Your task to perform on an android device: turn on javascript in the chrome app Image 0: 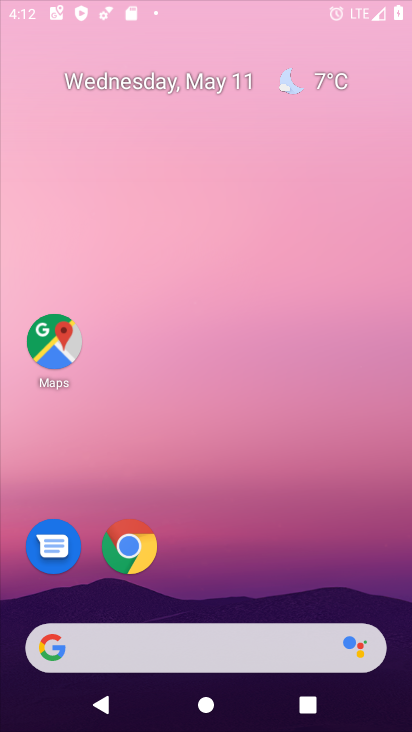
Step 0: drag from (214, 647) to (285, 35)
Your task to perform on an android device: turn on javascript in the chrome app Image 1: 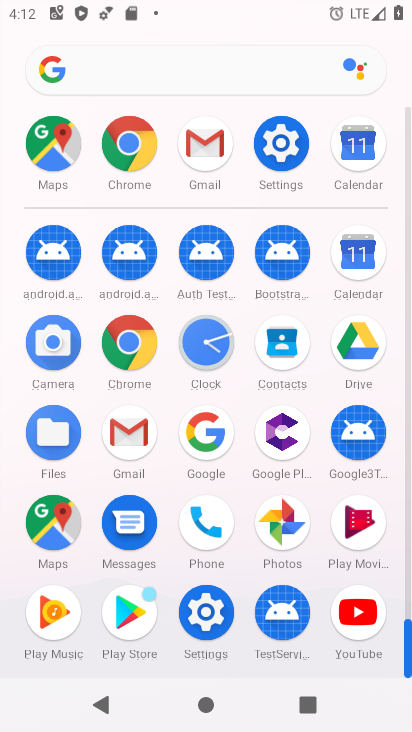
Step 1: click (126, 334)
Your task to perform on an android device: turn on javascript in the chrome app Image 2: 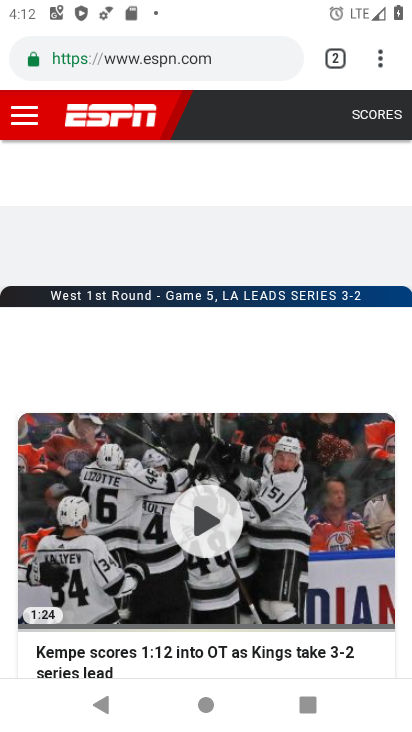
Step 2: drag from (377, 58) to (212, 578)
Your task to perform on an android device: turn on javascript in the chrome app Image 3: 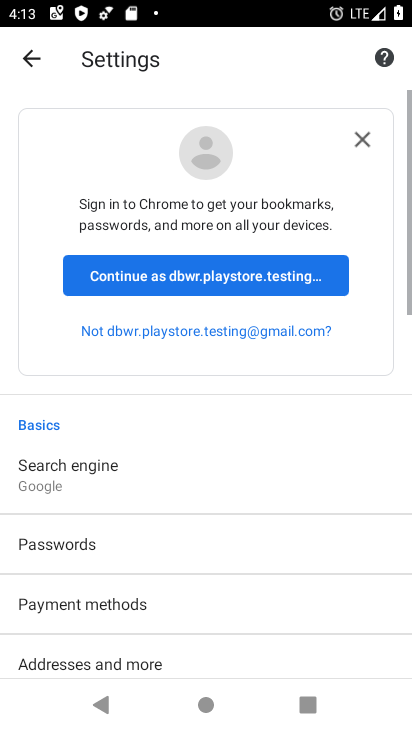
Step 3: drag from (247, 641) to (300, 49)
Your task to perform on an android device: turn on javascript in the chrome app Image 4: 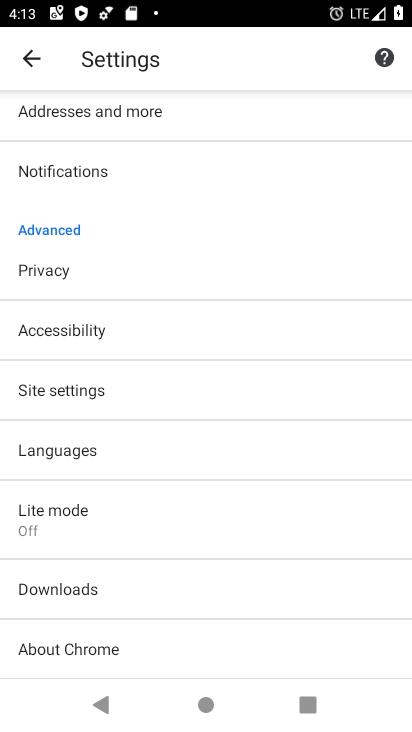
Step 4: click (106, 409)
Your task to perform on an android device: turn on javascript in the chrome app Image 5: 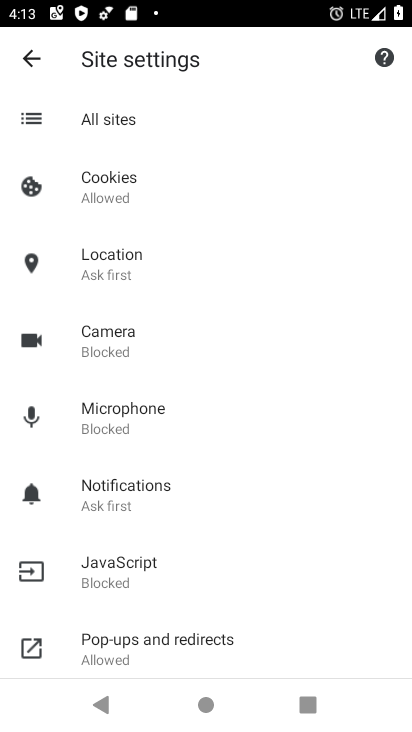
Step 5: click (124, 600)
Your task to perform on an android device: turn on javascript in the chrome app Image 6: 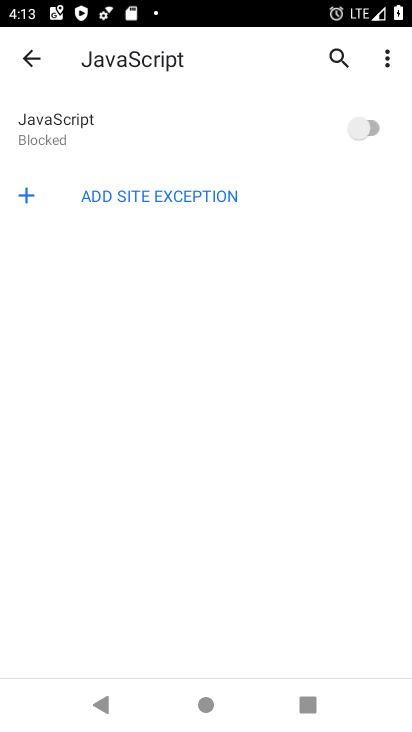
Step 6: click (368, 133)
Your task to perform on an android device: turn on javascript in the chrome app Image 7: 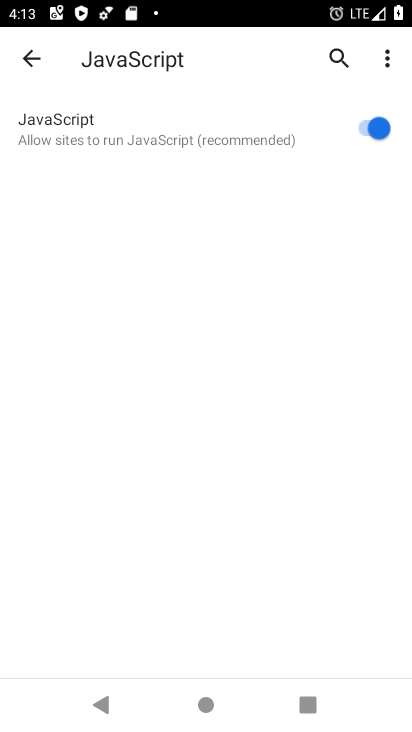
Step 7: task complete